Your task to perform on an android device: toggle notification dots Image 0: 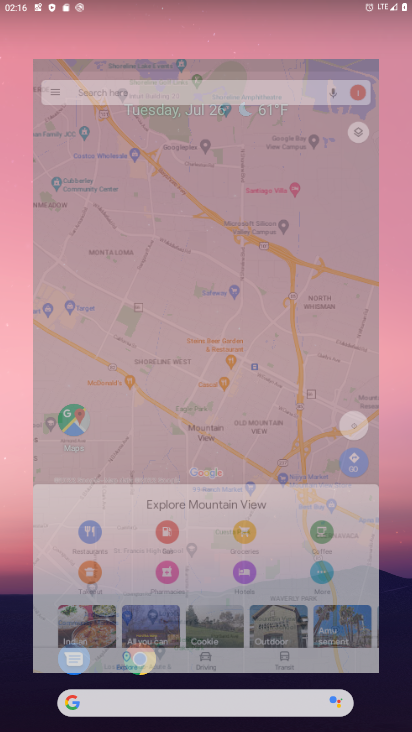
Step 0: drag from (230, 401) to (214, 139)
Your task to perform on an android device: toggle notification dots Image 1: 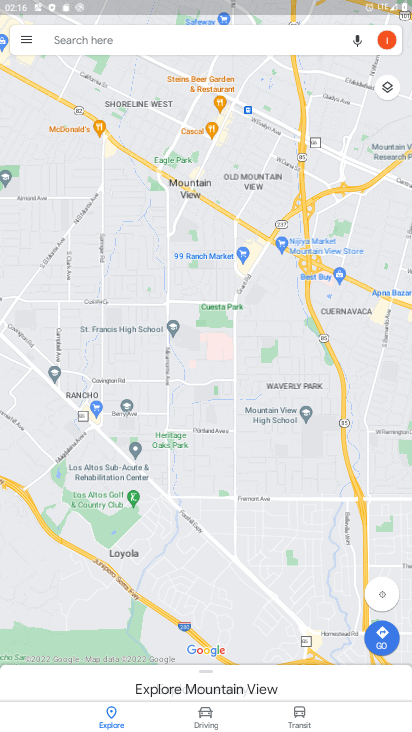
Step 1: press home button
Your task to perform on an android device: toggle notification dots Image 2: 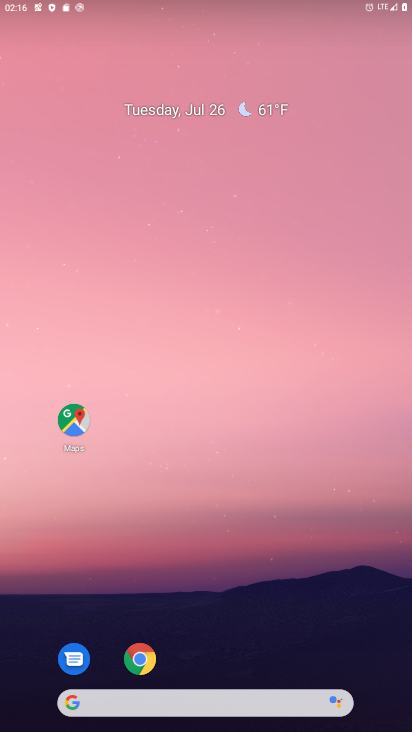
Step 2: drag from (272, 560) to (226, 88)
Your task to perform on an android device: toggle notification dots Image 3: 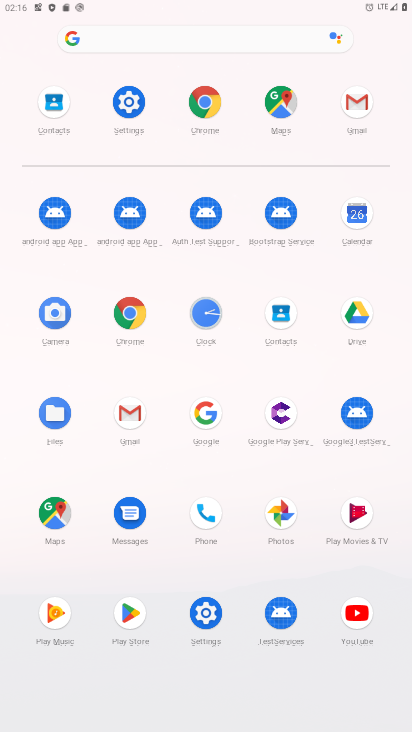
Step 3: click (127, 99)
Your task to perform on an android device: toggle notification dots Image 4: 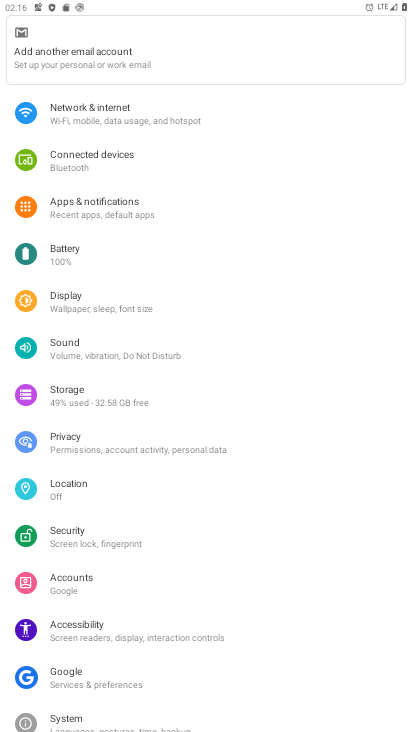
Step 4: click (141, 219)
Your task to perform on an android device: toggle notification dots Image 5: 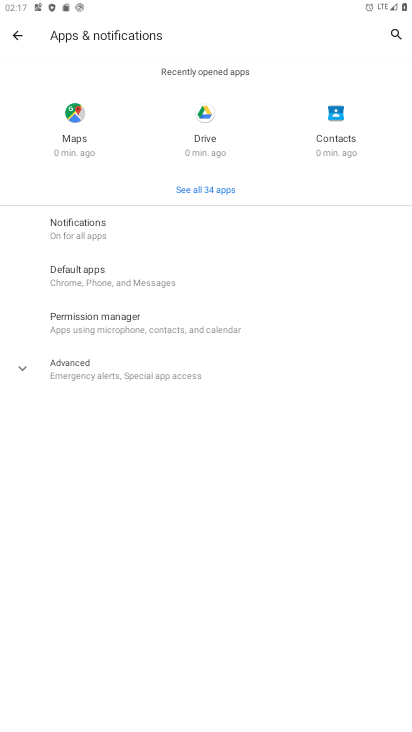
Step 5: click (76, 224)
Your task to perform on an android device: toggle notification dots Image 6: 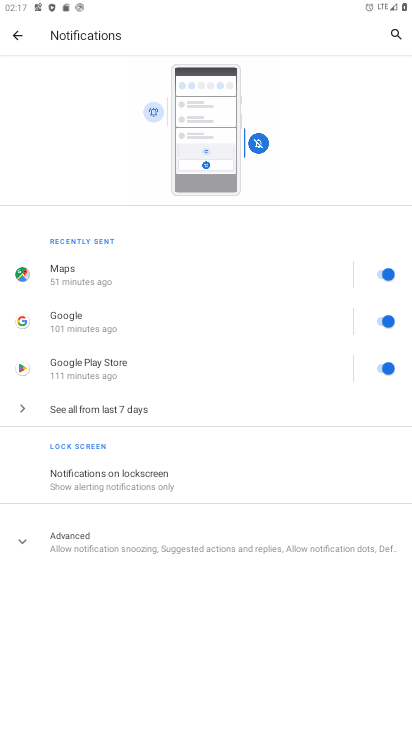
Step 6: click (150, 531)
Your task to perform on an android device: toggle notification dots Image 7: 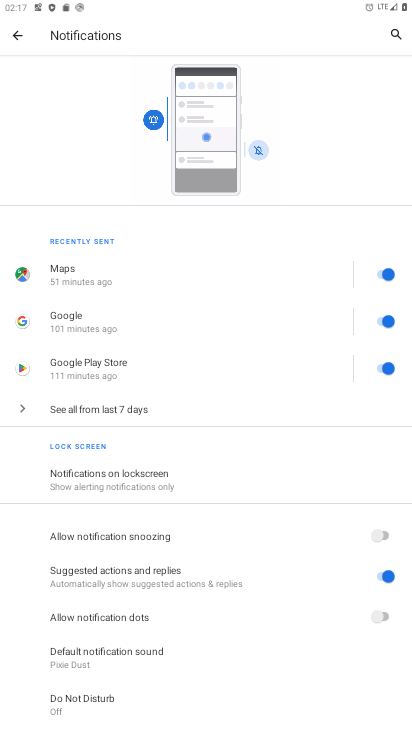
Step 7: click (386, 612)
Your task to perform on an android device: toggle notification dots Image 8: 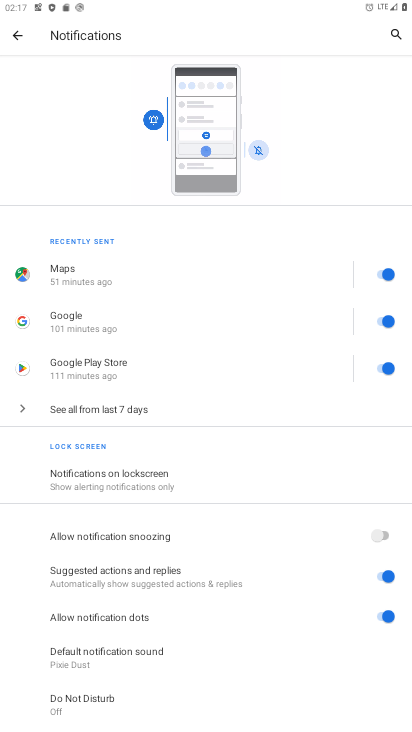
Step 8: task complete